Your task to perform on an android device: turn smart compose on in the gmail app Image 0: 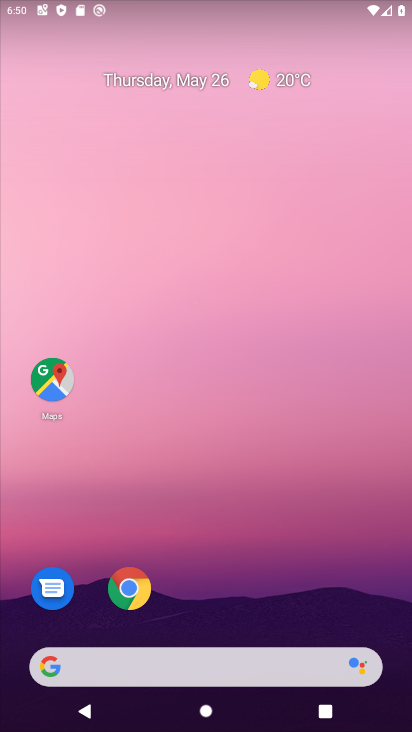
Step 0: drag from (394, 623) to (247, 129)
Your task to perform on an android device: turn smart compose on in the gmail app Image 1: 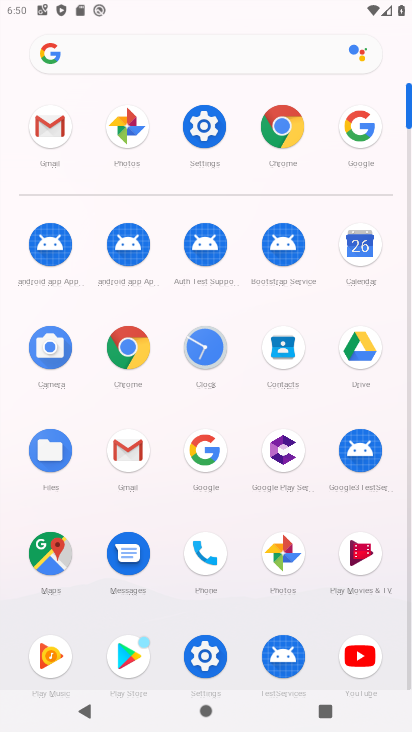
Step 1: click (132, 433)
Your task to perform on an android device: turn smart compose on in the gmail app Image 2: 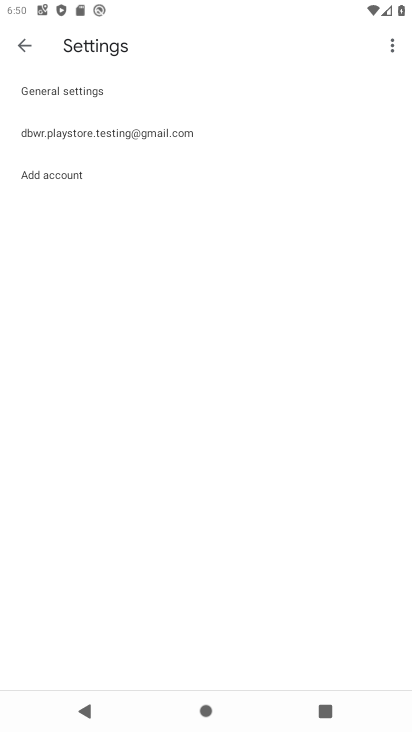
Step 2: click (108, 140)
Your task to perform on an android device: turn smart compose on in the gmail app Image 3: 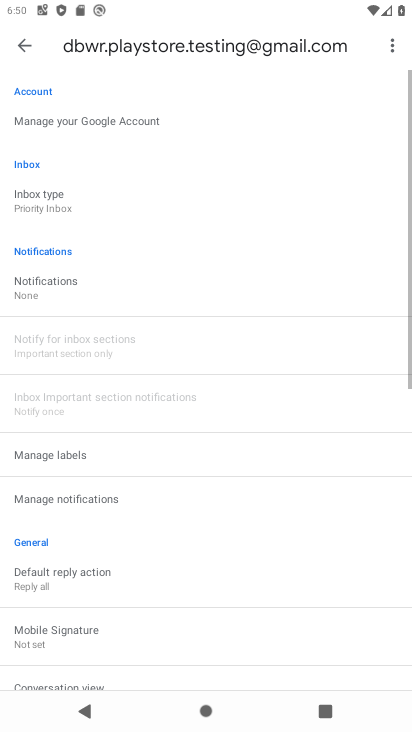
Step 3: task complete